Your task to perform on an android device: turn on the 12-hour format for clock Image 0: 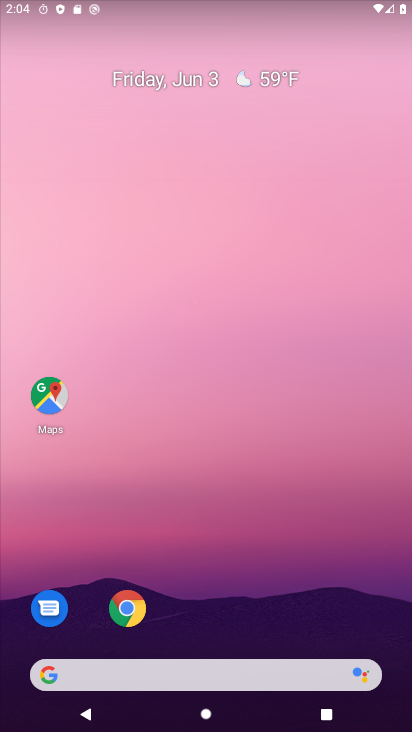
Step 0: drag from (244, 666) to (242, 114)
Your task to perform on an android device: turn on the 12-hour format for clock Image 1: 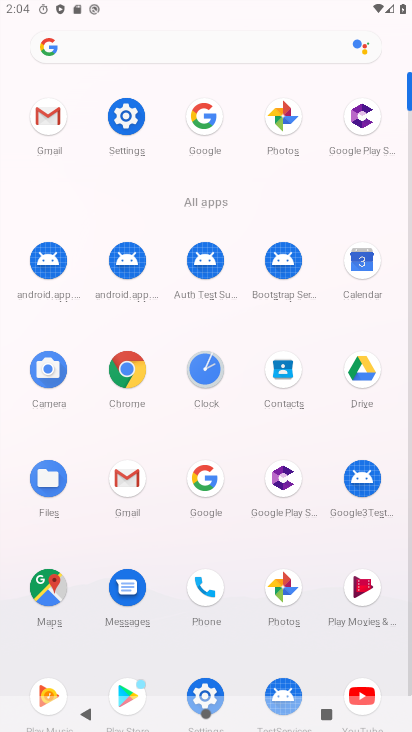
Step 1: click (140, 127)
Your task to perform on an android device: turn on the 12-hour format for clock Image 2: 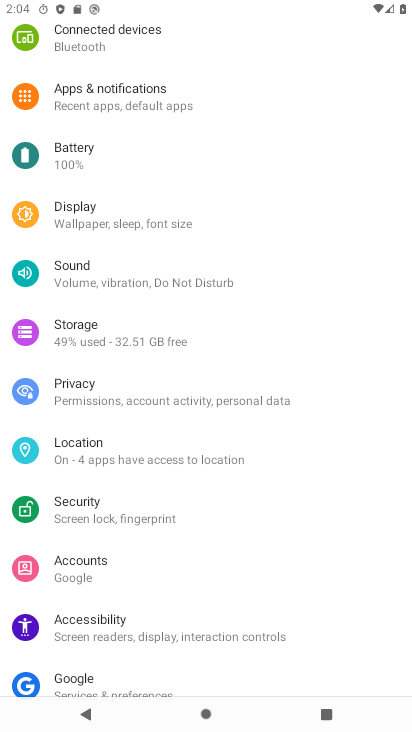
Step 2: drag from (157, 588) to (139, 150)
Your task to perform on an android device: turn on the 12-hour format for clock Image 3: 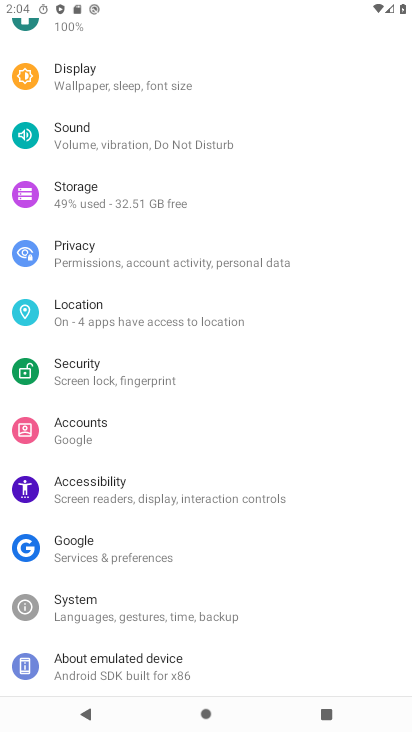
Step 3: click (79, 603)
Your task to perform on an android device: turn on the 12-hour format for clock Image 4: 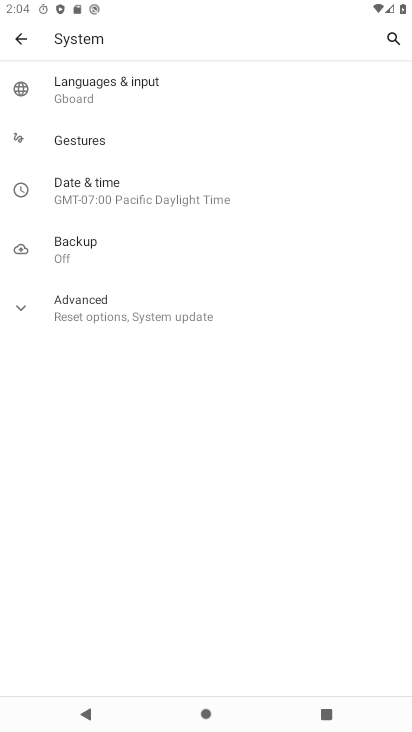
Step 4: click (94, 194)
Your task to perform on an android device: turn on the 12-hour format for clock Image 5: 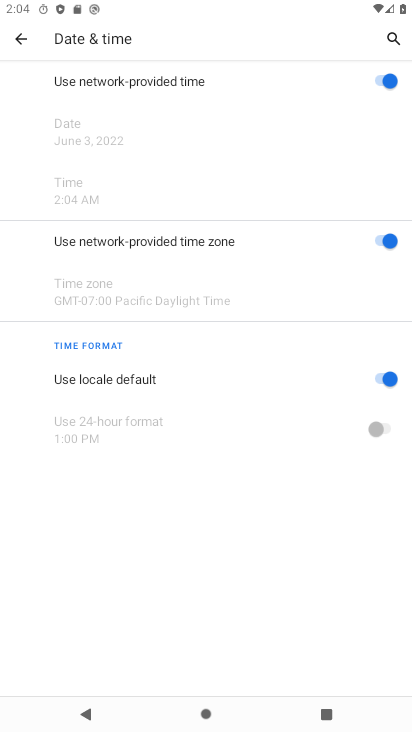
Step 5: task complete